Your task to perform on an android device: turn on airplane mode Image 0: 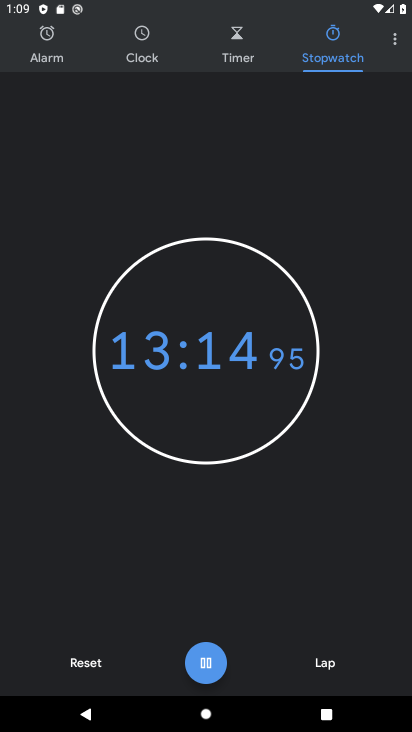
Step 0: press home button
Your task to perform on an android device: turn on airplane mode Image 1: 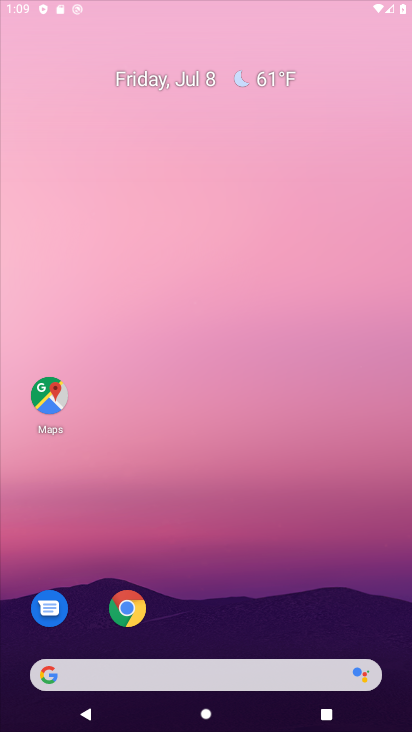
Step 1: drag from (200, 635) to (295, 55)
Your task to perform on an android device: turn on airplane mode Image 2: 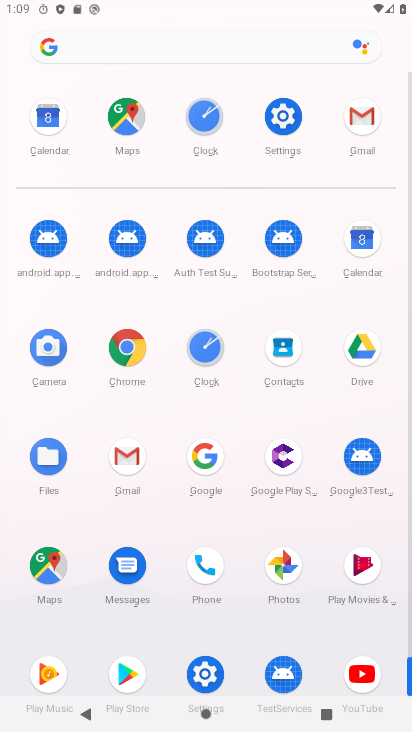
Step 2: click (278, 120)
Your task to perform on an android device: turn on airplane mode Image 3: 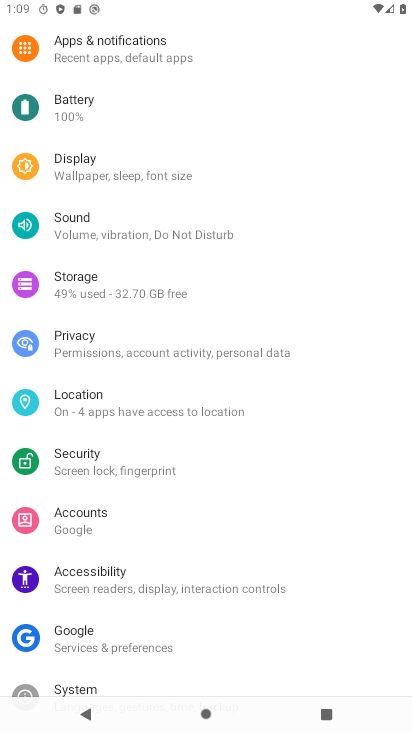
Step 3: drag from (115, 91) to (155, 505)
Your task to perform on an android device: turn on airplane mode Image 4: 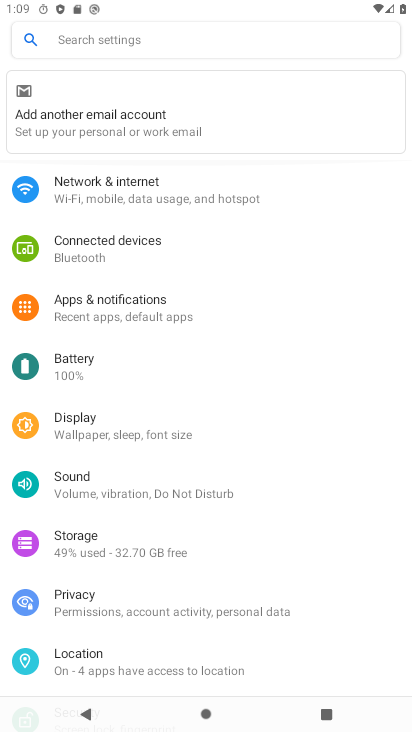
Step 4: click (150, 203)
Your task to perform on an android device: turn on airplane mode Image 5: 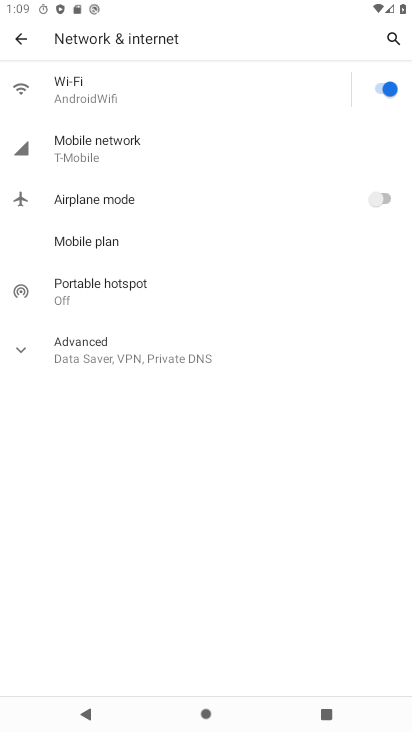
Step 5: click (382, 197)
Your task to perform on an android device: turn on airplane mode Image 6: 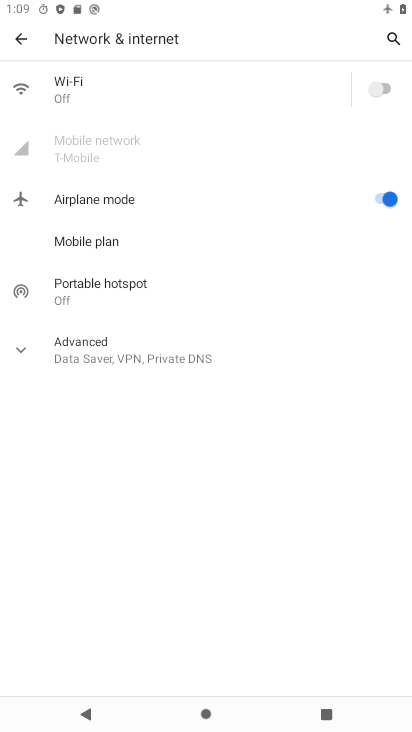
Step 6: task complete